Your task to perform on an android device: open the mobile data screen to see how much data has been used Image 0: 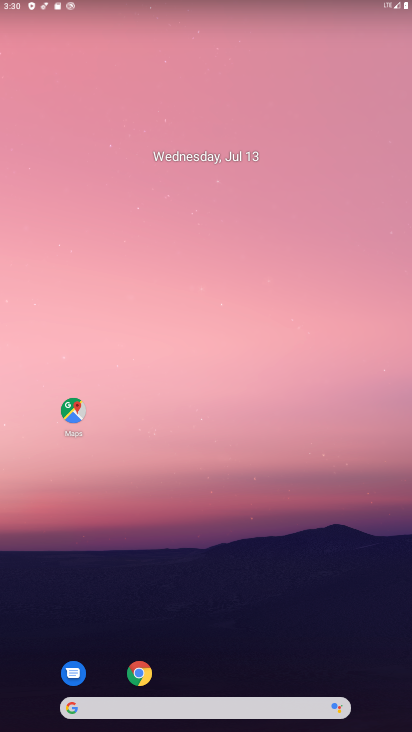
Step 0: drag from (174, 708) to (269, 181)
Your task to perform on an android device: open the mobile data screen to see how much data has been used Image 1: 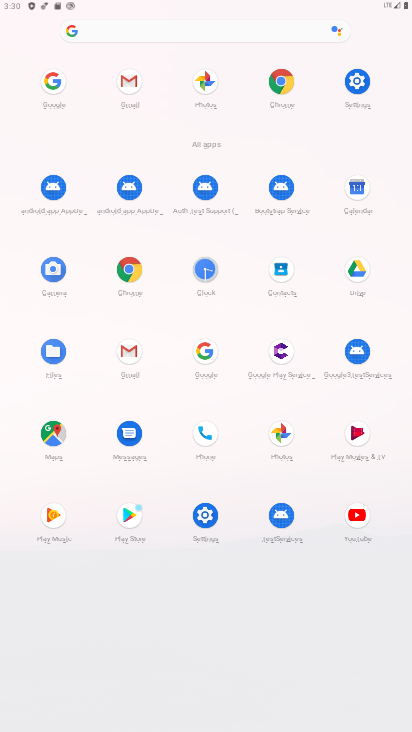
Step 1: click (355, 78)
Your task to perform on an android device: open the mobile data screen to see how much data has been used Image 2: 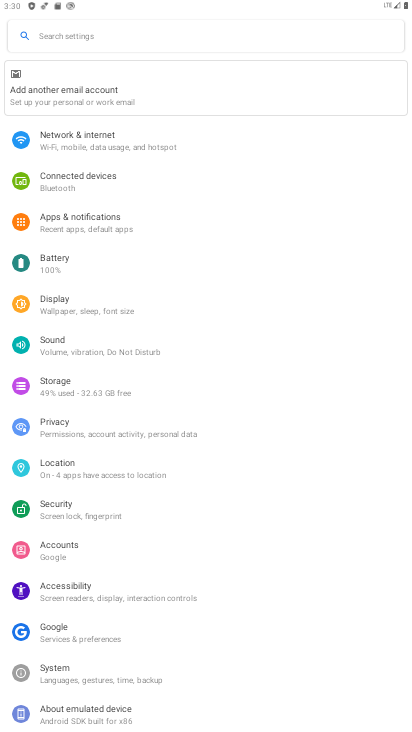
Step 2: click (136, 149)
Your task to perform on an android device: open the mobile data screen to see how much data has been used Image 3: 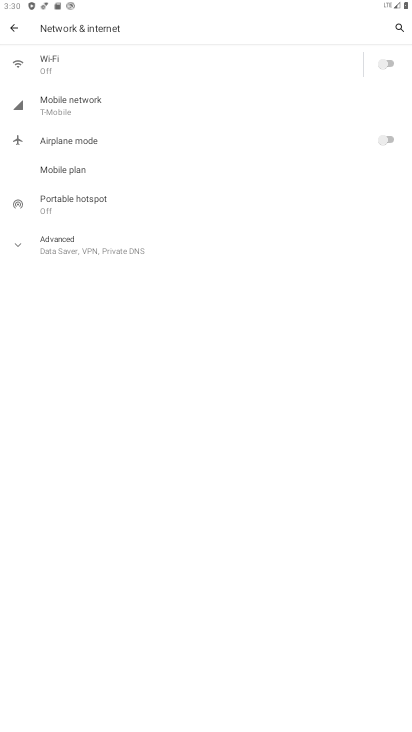
Step 3: click (92, 93)
Your task to perform on an android device: open the mobile data screen to see how much data has been used Image 4: 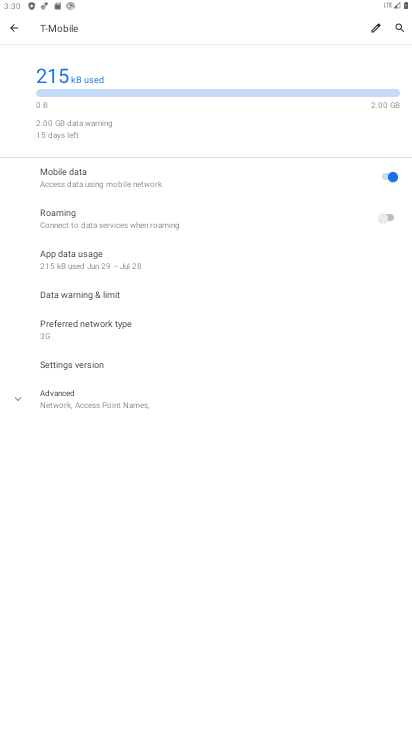
Step 4: task complete